Your task to perform on an android device: Go to notification settings Image 0: 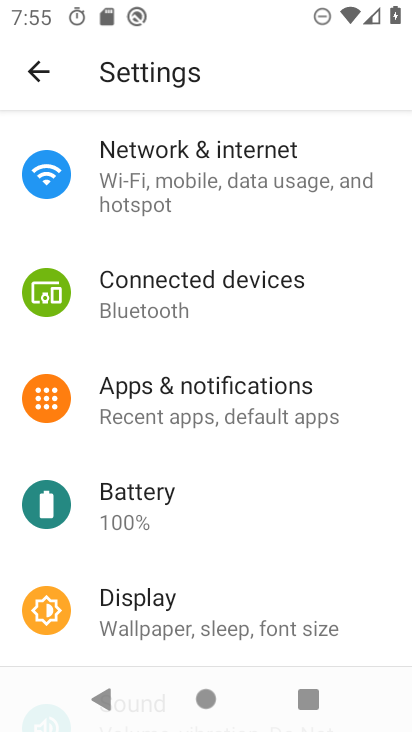
Step 0: press home button
Your task to perform on an android device: Go to notification settings Image 1: 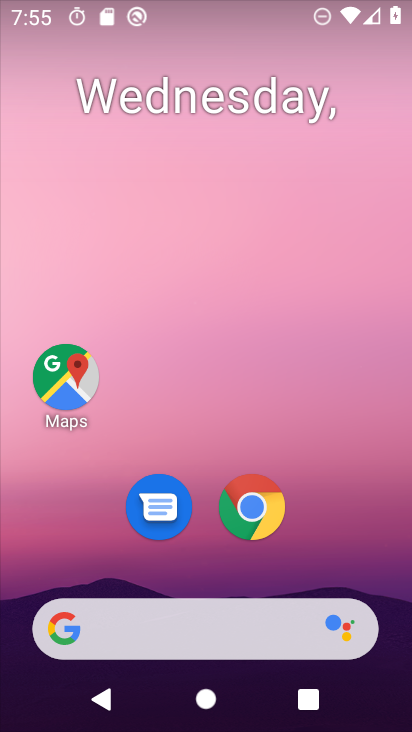
Step 1: drag from (239, 671) to (311, 147)
Your task to perform on an android device: Go to notification settings Image 2: 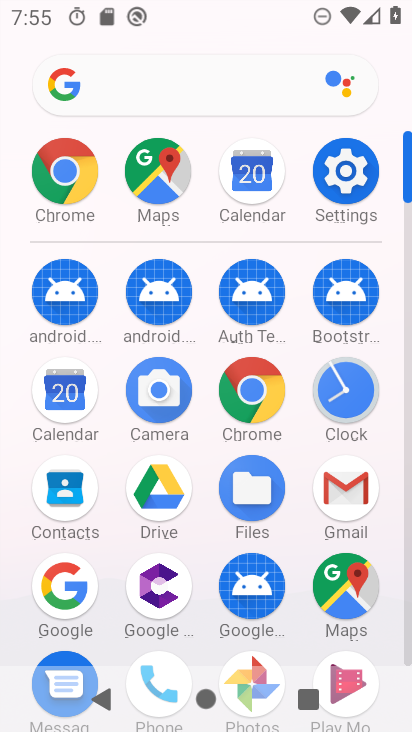
Step 2: click (325, 181)
Your task to perform on an android device: Go to notification settings Image 3: 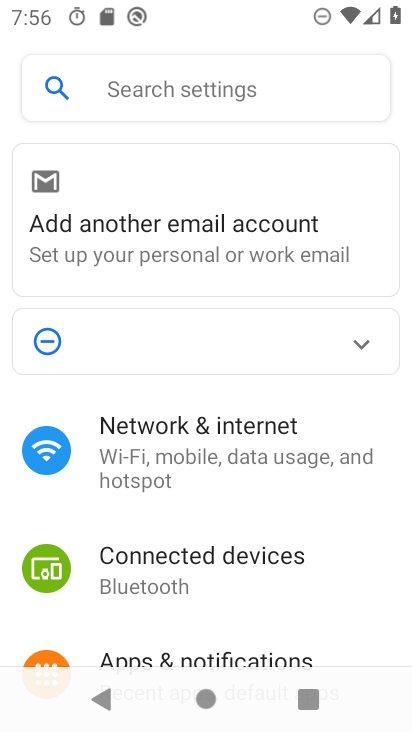
Step 3: click (171, 92)
Your task to perform on an android device: Go to notification settings Image 4: 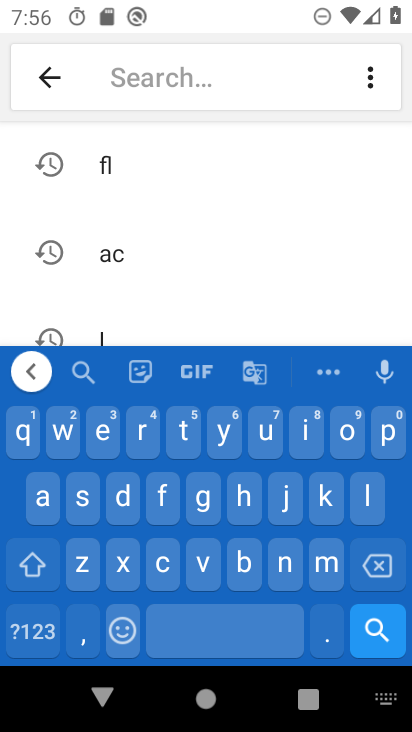
Step 4: click (277, 571)
Your task to perform on an android device: Go to notification settings Image 5: 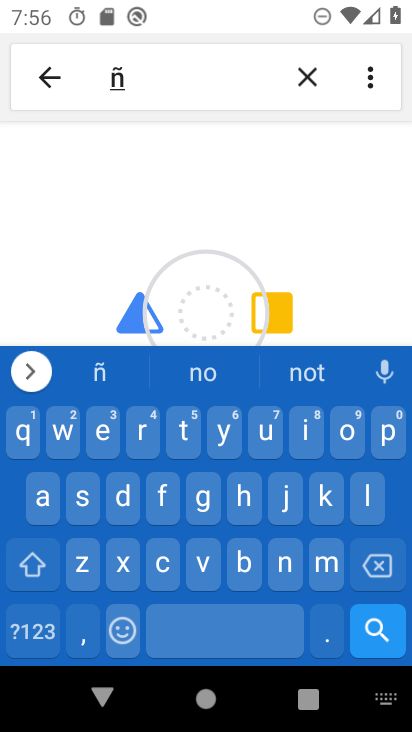
Step 5: click (378, 562)
Your task to perform on an android device: Go to notification settings Image 6: 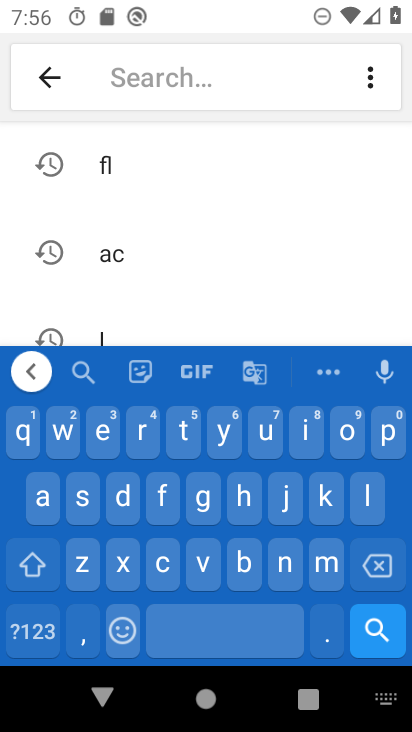
Step 6: click (282, 568)
Your task to perform on an android device: Go to notification settings Image 7: 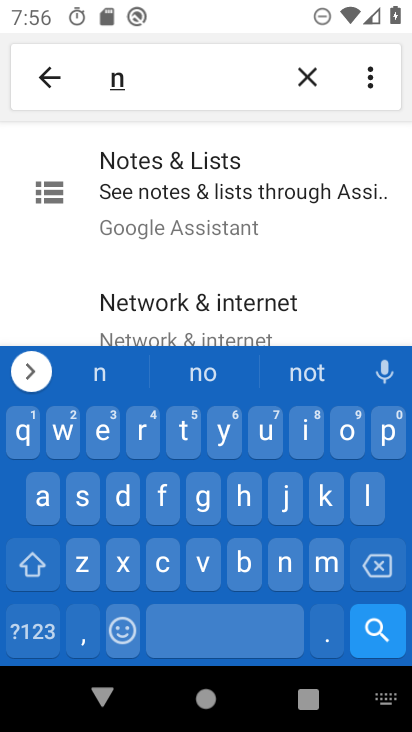
Step 7: click (348, 445)
Your task to perform on an android device: Go to notification settings Image 8: 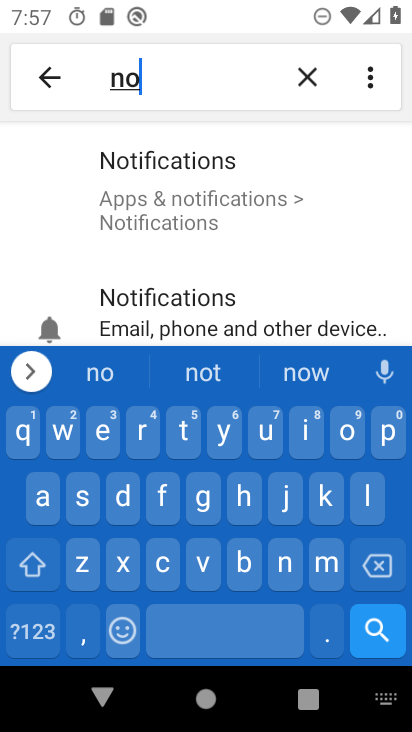
Step 8: click (227, 193)
Your task to perform on an android device: Go to notification settings Image 9: 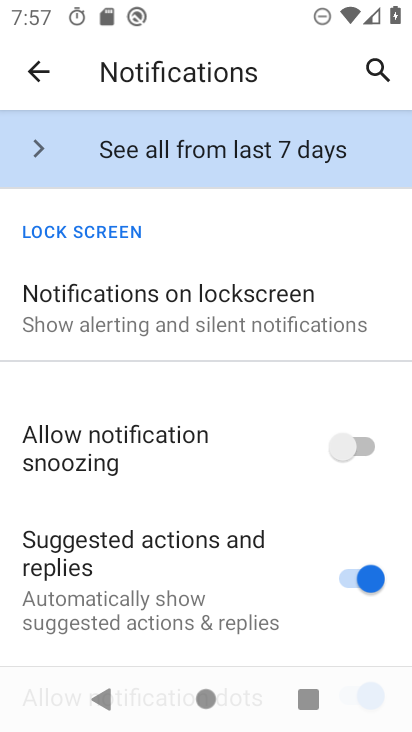
Step 9: click (142, 307)
Your task to perform on an android device: Go to notification settings Image 10: 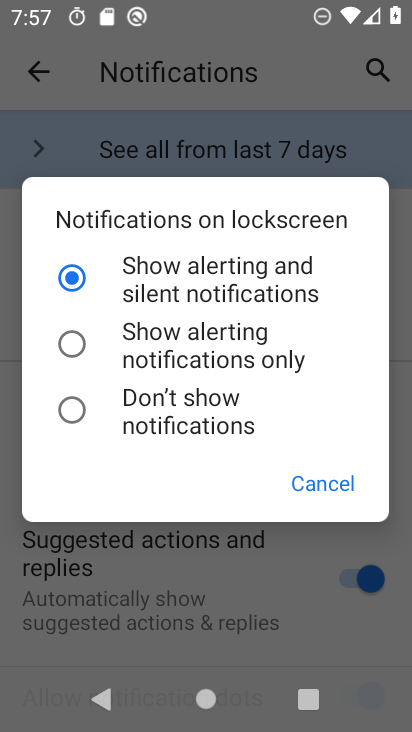
Step 10: task complete